Your task to perform on an android device: Open sound settings Image 0: 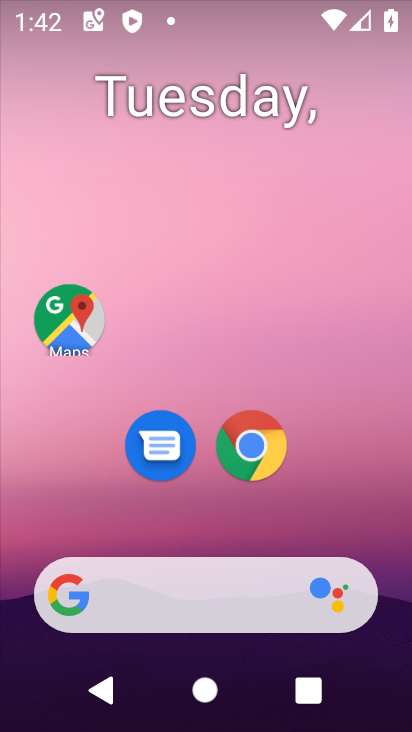
Step 0: drag from (363, 457) to (259, 2)
Your task to perform on an android device: Open sound settings Image 1: 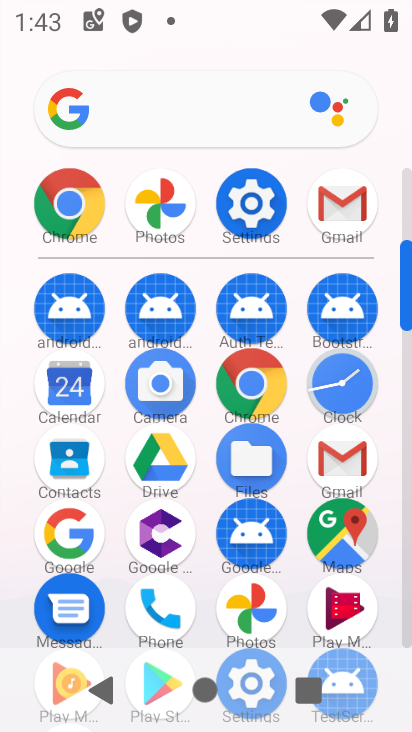
Step 1: click (256, 251)
Your task to perform on an android device: Open sound settings Image 2: 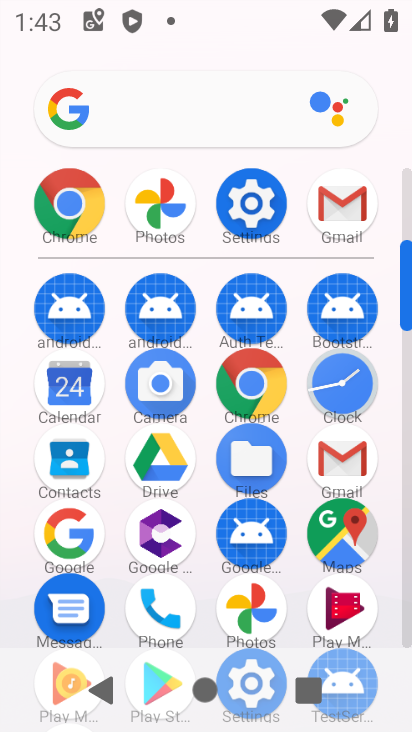
Step 2: click (245, 206)
Your task to perform on an android device: Open sound settings Image 3: 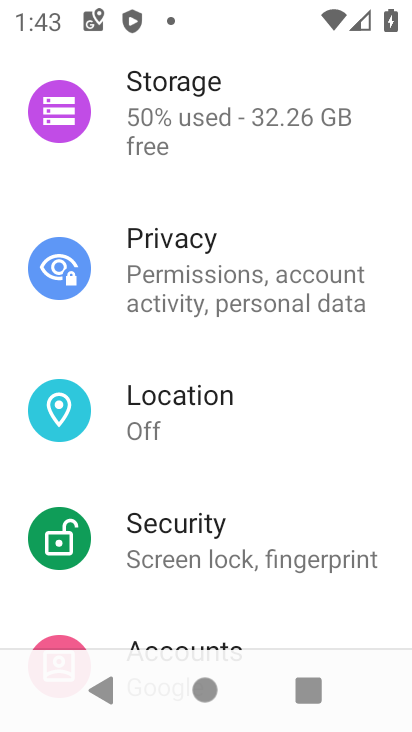
Step 3: drag from (329, 490) to (268, 193)
Your task to perform on an android device: Open sound settings Image 4: 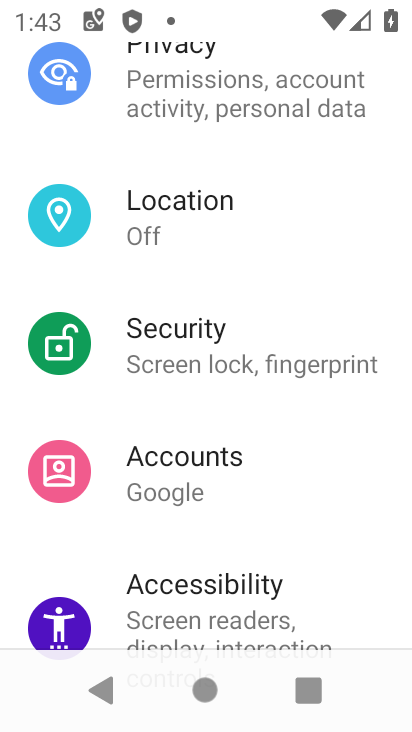
Step 4: drag from (290, 510) to (222, 219)
Your task to perform on an android device: Open sound settings Image 5: 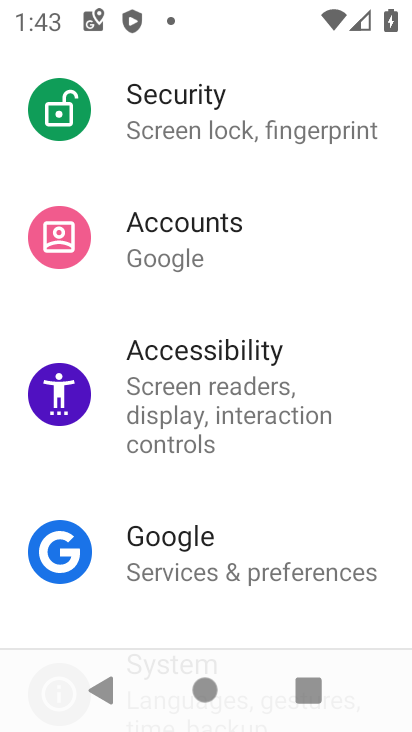
Step 5: drag from (309, 510) to (134, 137)
Your task to perform on an android device: Open sound settings Image 6: 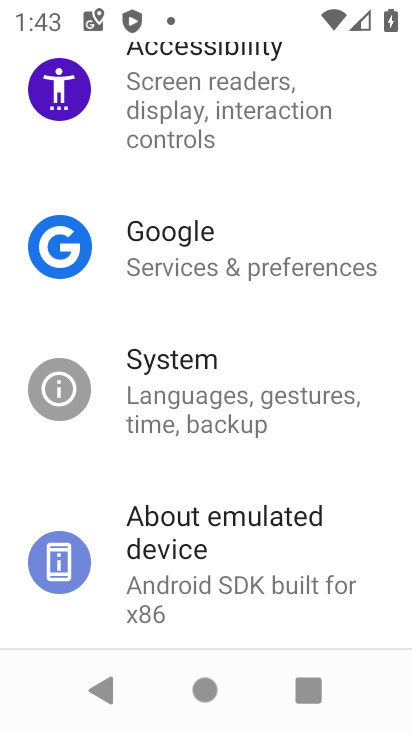
Step 6: drag from (232, 486) to (168, 195)
Your task to perform on an android device: Open sound settings Image 7: 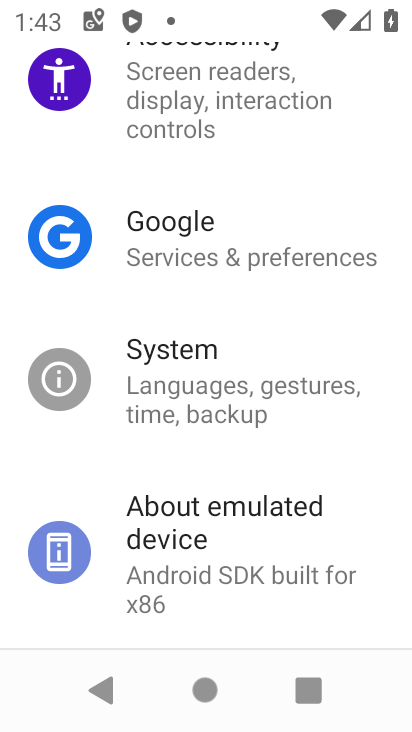
Step 7: drag from (227, 271) to (399, 659)
Your task to perform on an android device: Open sound settings Image 8: 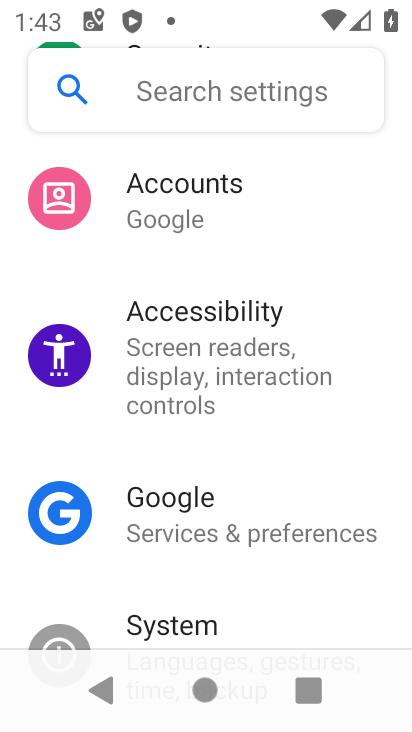
Step 8: drag from (171, 268) to (246, 581)
Your task to perform on an android device: Open sound settings Image 9: 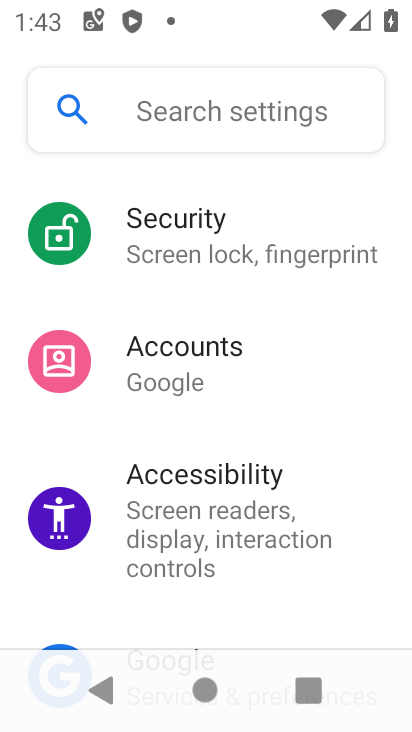
Step 9: drag from (234, 351) to (302, 622)
Your task to perform on an android device: Open sound settings Image 10: 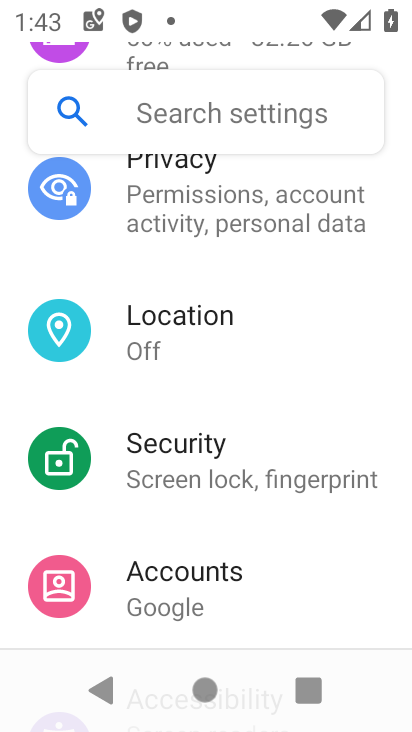
Step 10: drag from (231, 275) to (252, 550)
Your task to perform on an android device: Open sound settings Image 11: 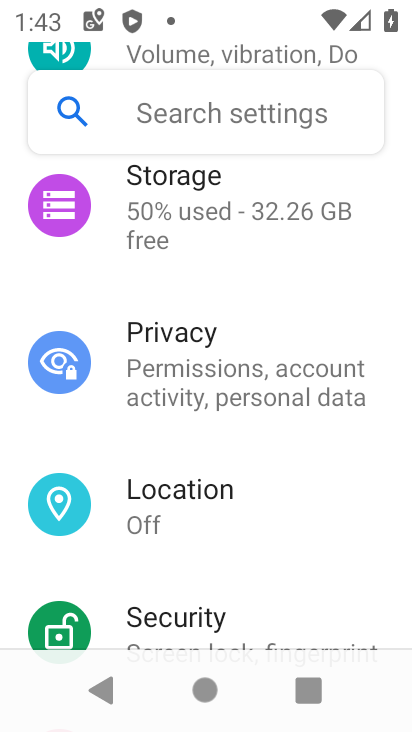
Step 11: drag from (213, 270) to (281, 586)
Your task to perform on an android device: Open sound settings Image 12: 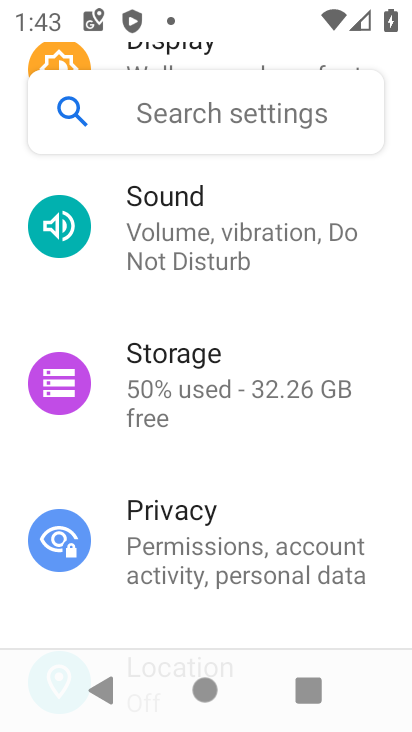
Step 12: click (177, 252)
Your task to perform on an android device: Open sound settings Image 13: 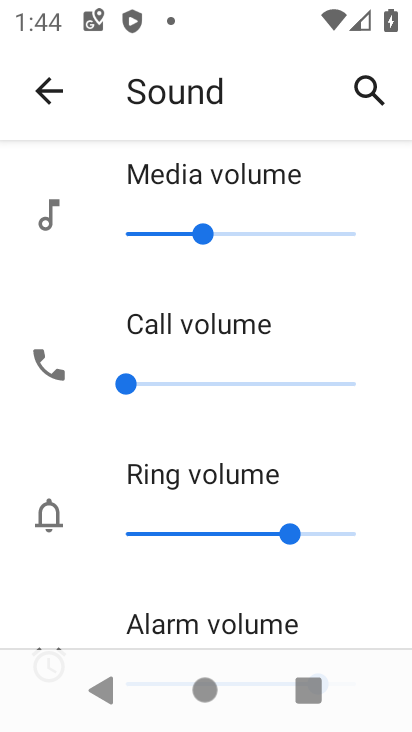
Step 13: task complete